Your task to perform on an android device: What's on my calendar tomorrow? Image 0: 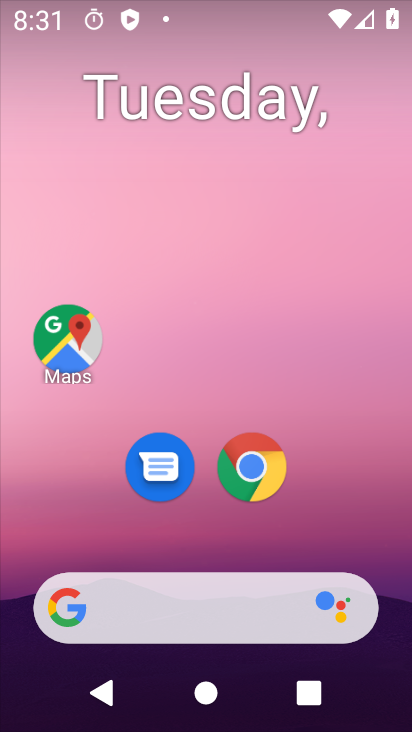
Step 0: drag from (401, 611) to (298, 108)
Your task to perform on an android device: What's on my calendar tomorrow? Image 1: 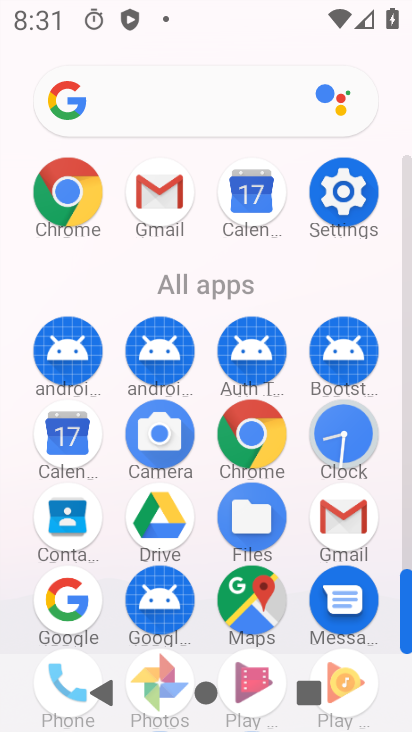
Step 1: click (267, 187)
Your task to perform on an android device: What's on my calendar tomorrow? Image 2: 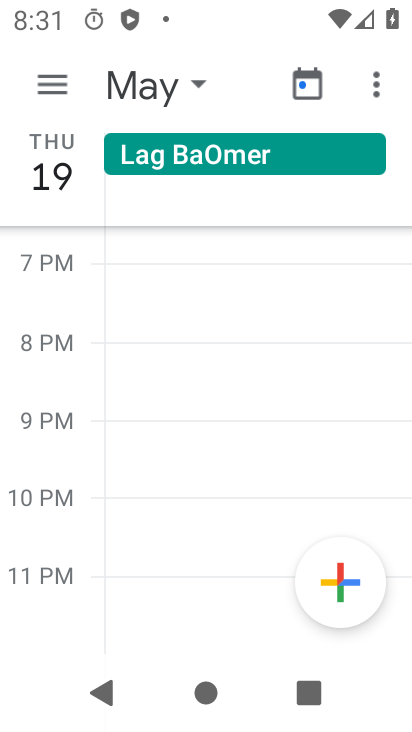
Step 2: task complete